Your task to perform on an android device: clear history in the chrome app Image 0: 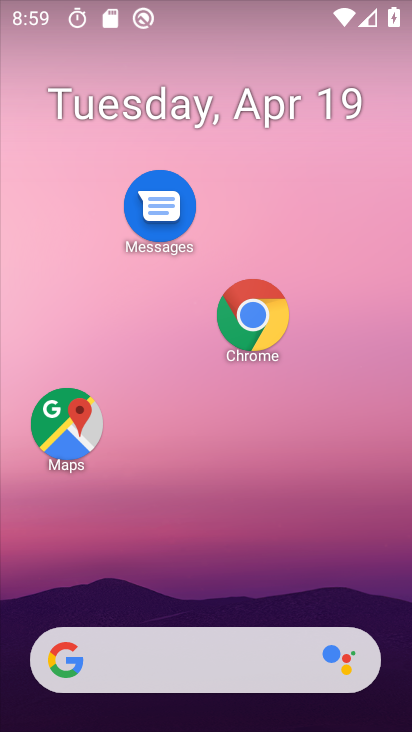
Step 0: click (221, 303)
Your task to perform on an android device: clear history in the chrome app Image 1: 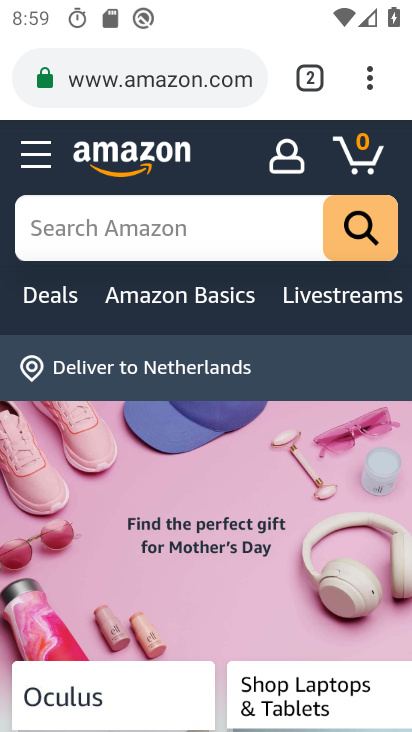
Step 1: drag from (370, 76) to (151, 534)
Your task to perform on an android device: clear history in the chrome app Image 2: 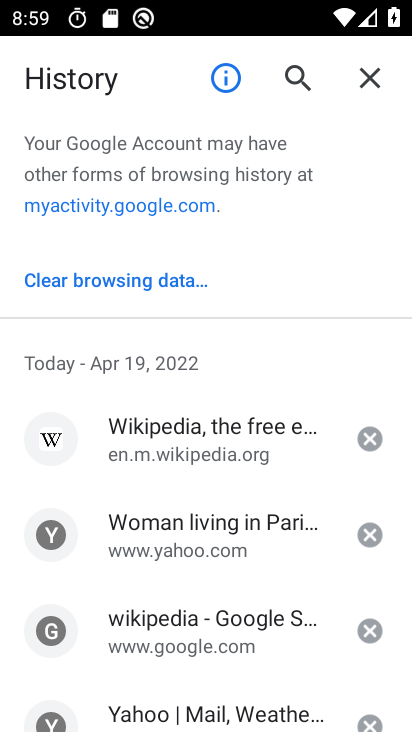
Step 2: click (123, 279)
Your task to perform on an android device: clear history in the chrome app Image 3: 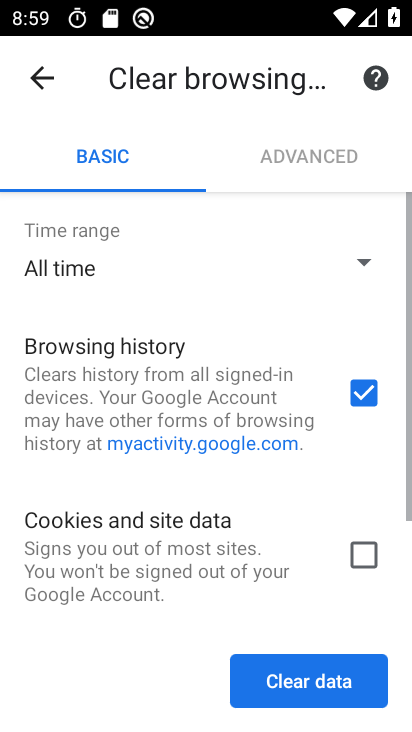
Step 3: click (290, 664)
Your task to perform on an android device: clear history in the chrome app Image 4: 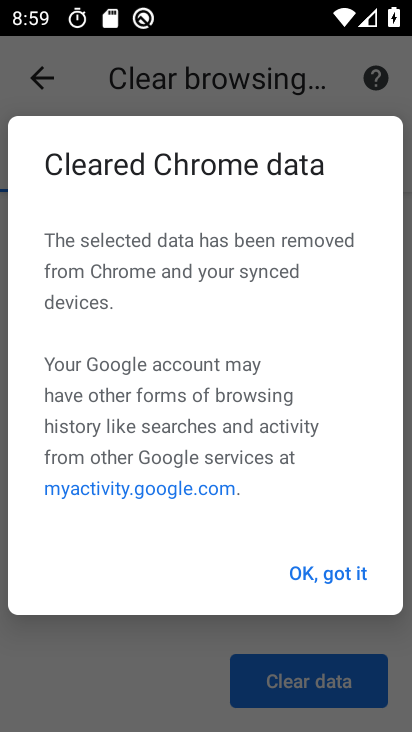
Step 4: click (332, 590)
Your task to perform on an android device: clear history in the chrome app Image 5: 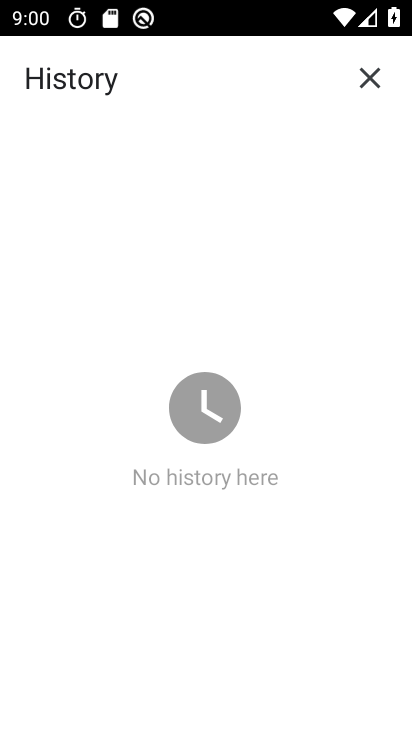
Step 5: task complete